Your task to perform on an android device: Open Youtube and go to "Your channel" Image 0: 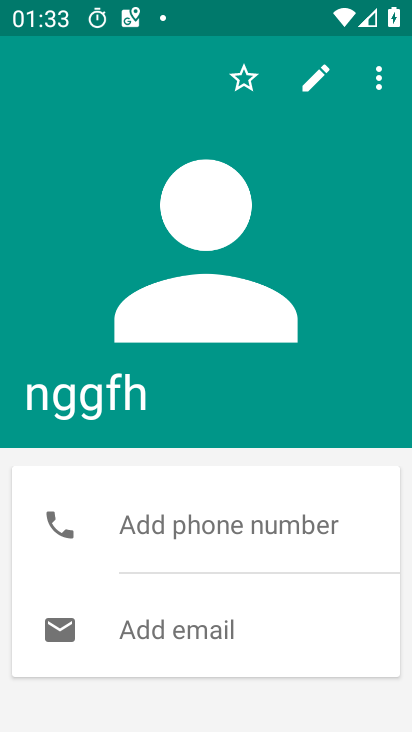
Step 0: press home button
Your task to perform on an android device: Open Youtube and go to "Your channel" Image 1: 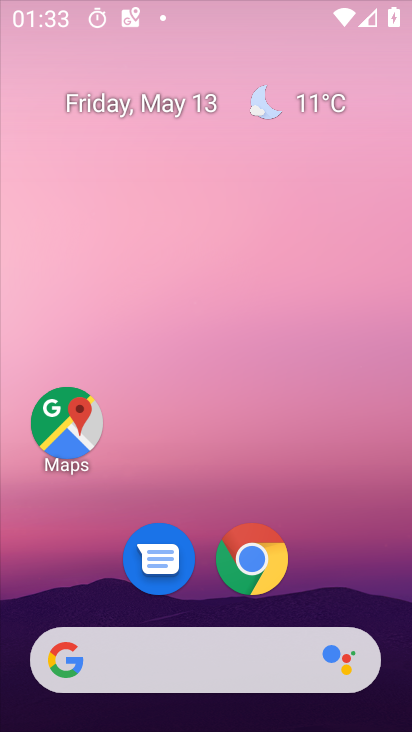
Step 1: drag from (331, 570) to (346, 142)
Your task to perform on an android device: Open Youtube and go to "Your channel" Image 2: 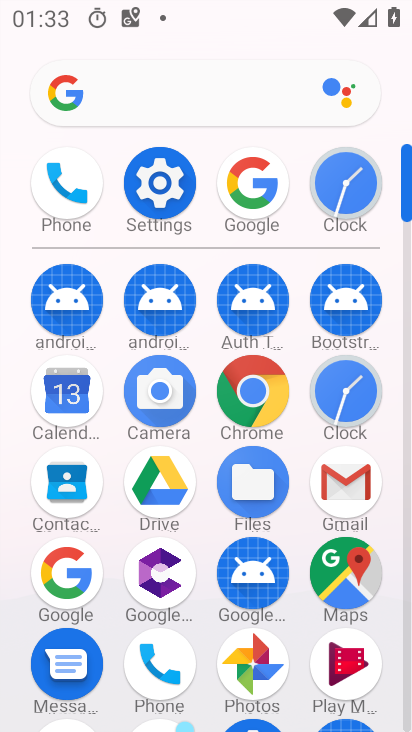
Step 2: drag from (306, 560) to (306, 175)
Your task to perform on an android device: Open Youtube and go to "Your channel" Image 3: 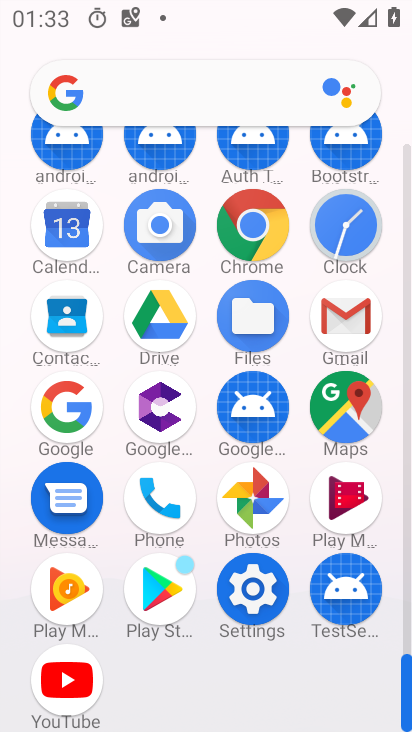
Step 3: click (72, 667)
Your task to perform on an android device: Open Youtube and go to "Your channel" Image 4: 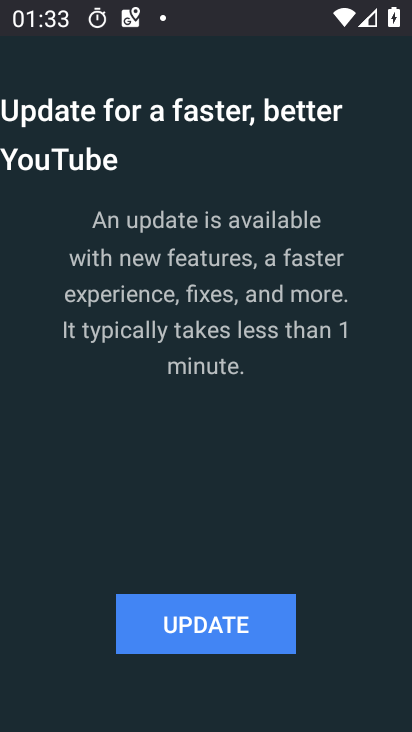
Step 4: click (207, 629)
Your task to perform on an android device: Open Youtube and go to "Your channel" Image 5: 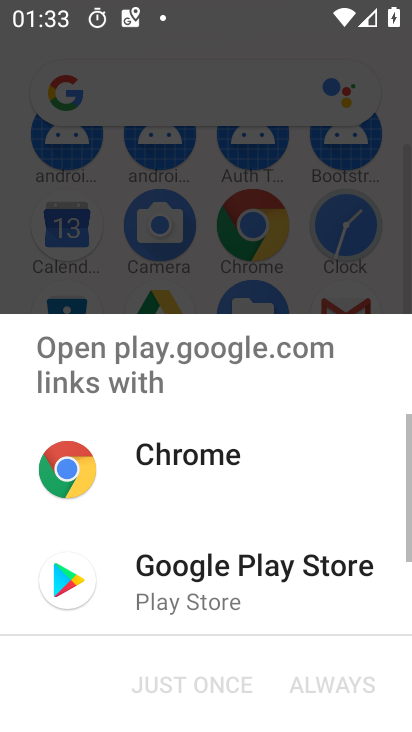
Step 5: click (171, 571)
Your task to perform on an android device: Open Youtube and go to "Your channel" Image 6: 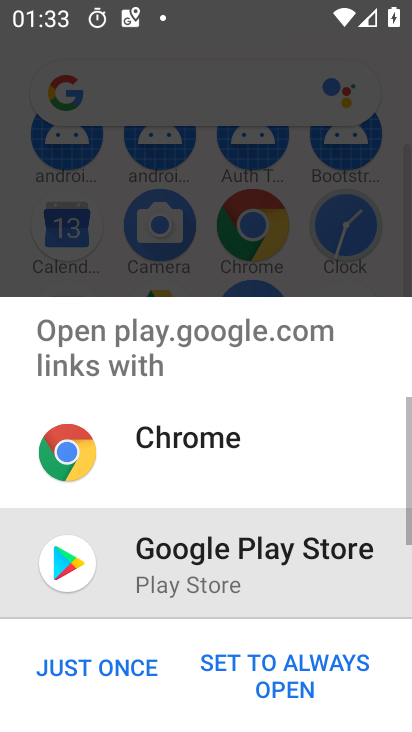
Step 6: click (119, 644)
Your task to perform on an android device: Open Youtube and go to "Your channel" Image 7: 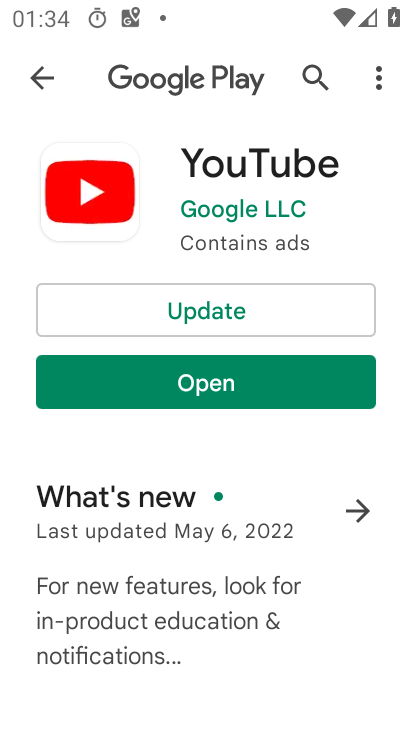
Step 7: click (191, 324)
Your task to perform on an android device: Open Youtube and go to "Your channel" Image 8: 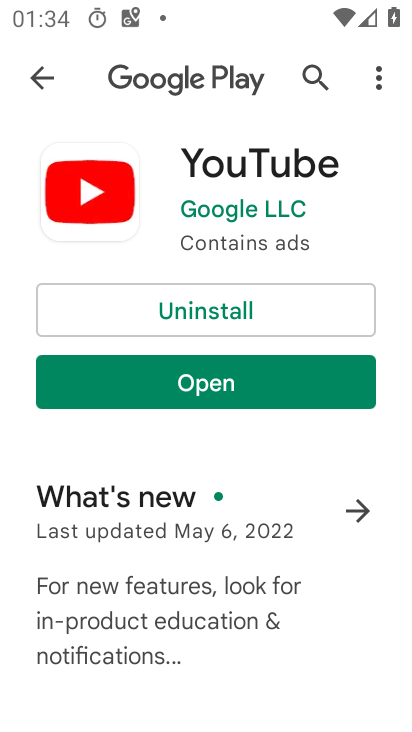
Step 8: task complete